Your task to perform on an android device: Go to eBay Image 0: 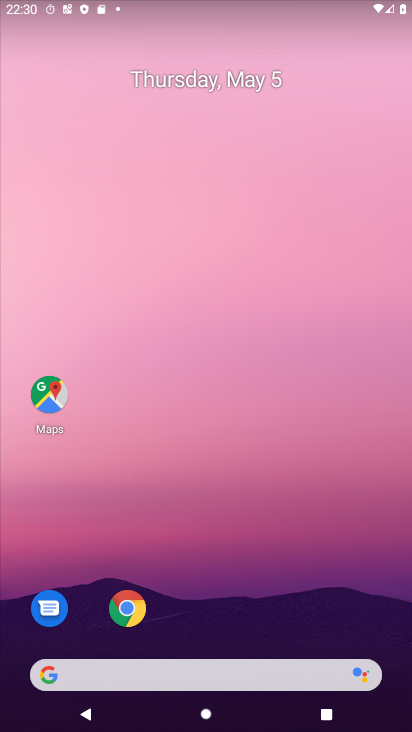
Step 0: drag from (269, 627) to (248, 2)
Your task to perform on an android device: Go to eBay Image 1: 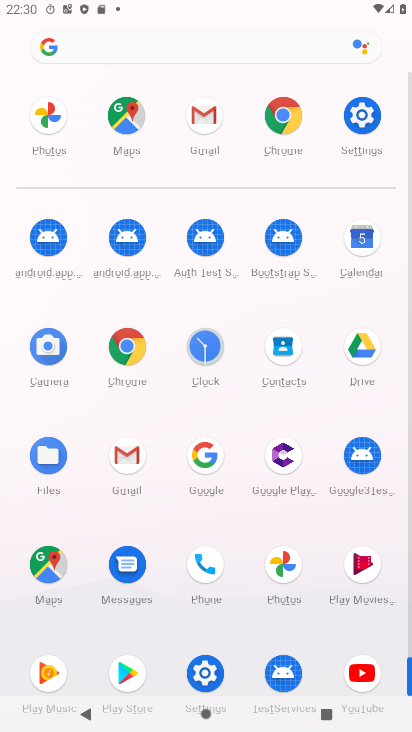
Step 1: click (123, 346)
Your task to perform on an android device: Go to eBay Image 2: 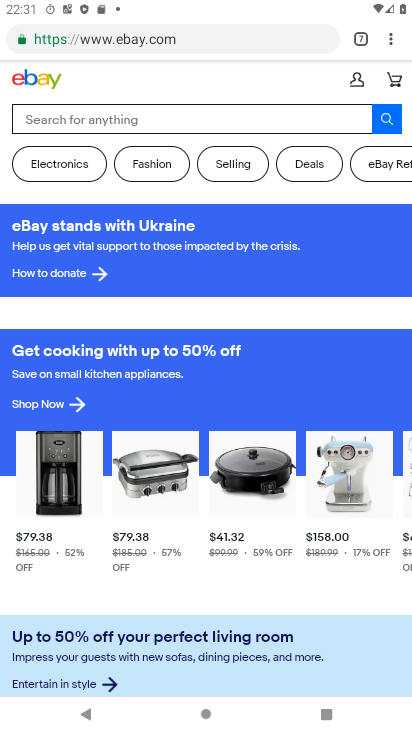
Step 2: task complete